Your task to perform on an android device: Go to Yahoo.com Image 0: 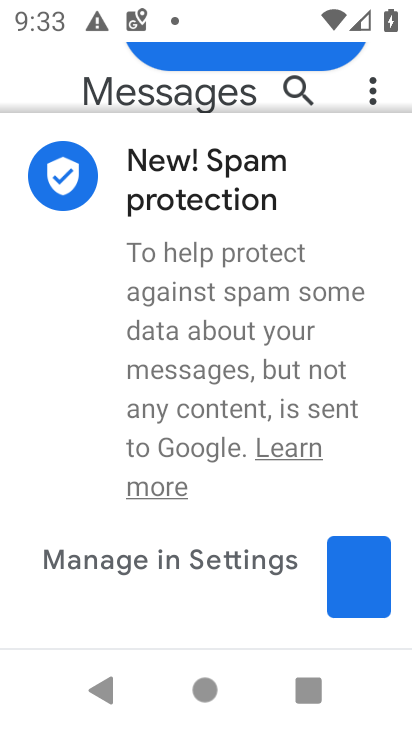
Step 0: press home button
Your task to perform on an android device: Go to Yahoo.com Image 1: 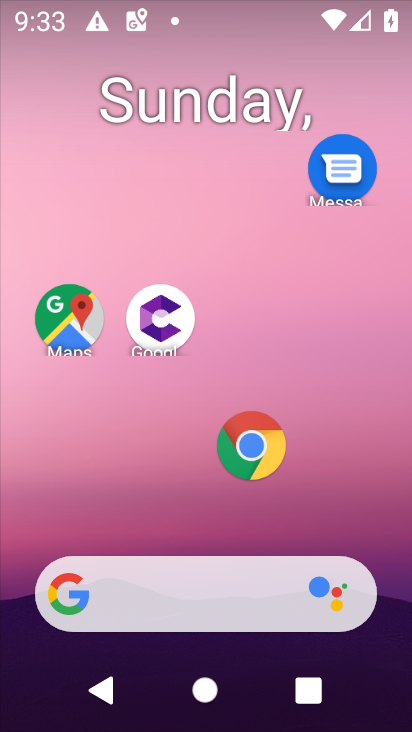
Step 1: drag from (121, 529) to (205, 18)
Your task to perform on an android device: Go to Yahoo.com Image 2: 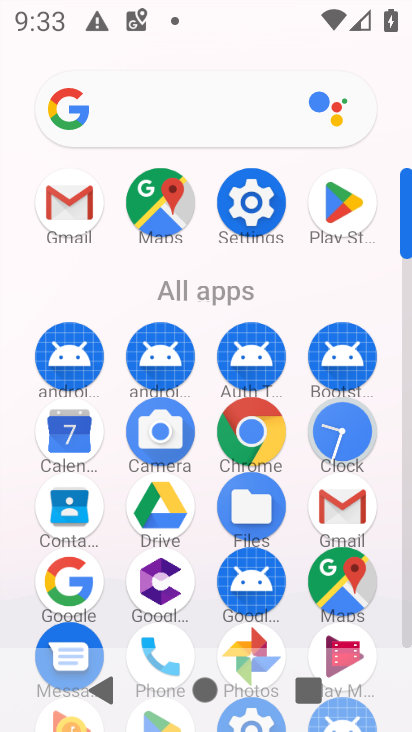
Step 2: click (256, 447)
Your task to perform on an android device: Go to Yahoo.com Image 3: 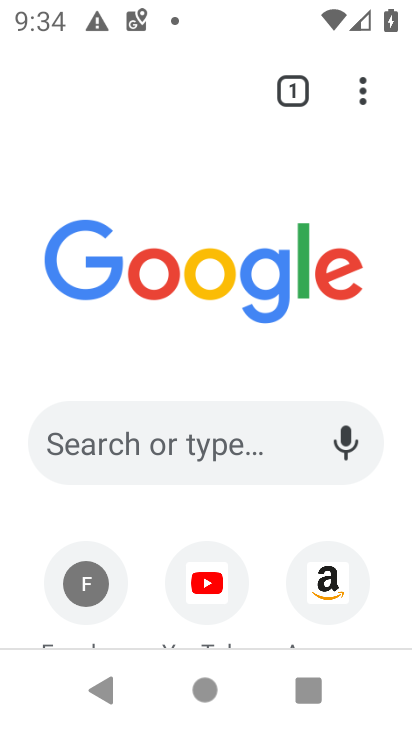
Step 3: click (168, 456)
Your task to perform on an android device: Go to Yahoo.com Image 4: 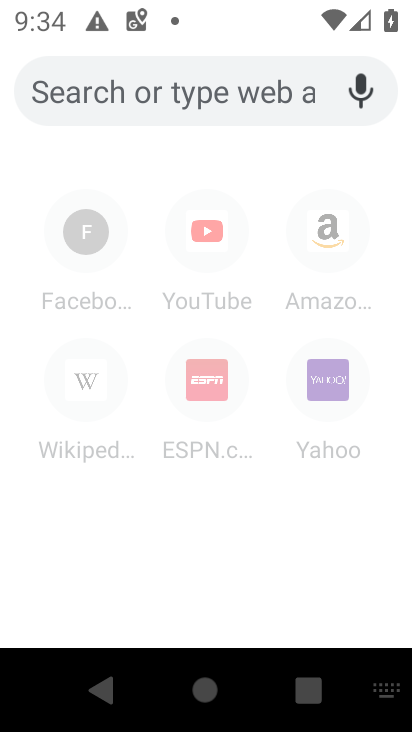
Step 4: type "Yahoo.com"
Your task to perform on an android device: Go to Yahoo.com Image 5: 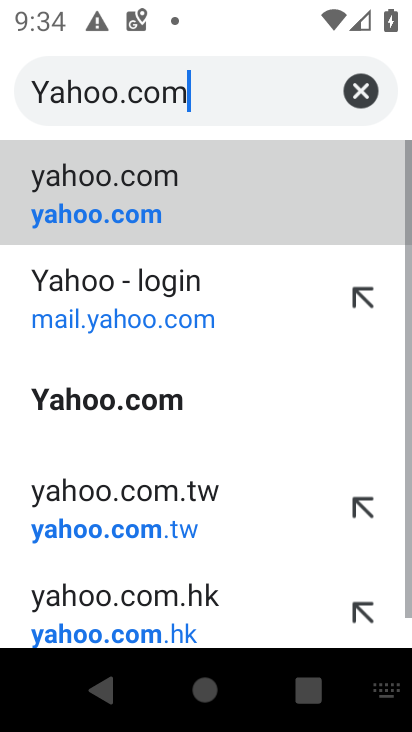
Step 5: press enter
Your task to perform on an android device: Go to Yahoo.com Image 6: 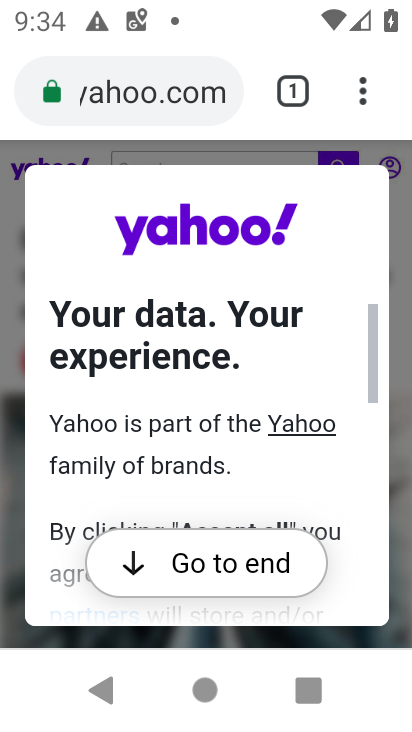
Step 6: task complete